Your task to perform on an android device: open app "Facebook Lite" (install if not already installed) Image 0: 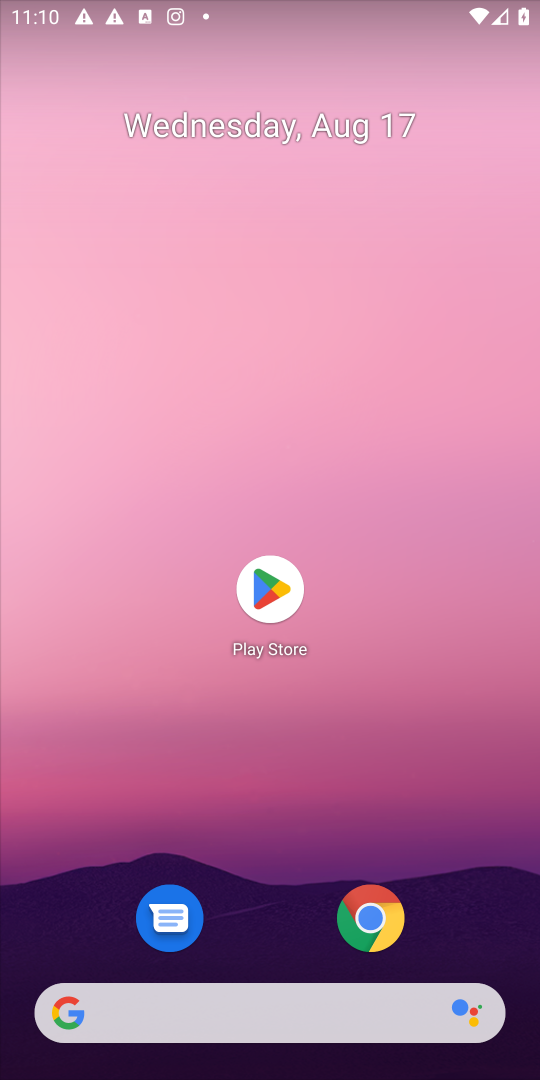
Step 0: click (262, 588)
Your task to perform on an android device: open app "Facebook Lite" (install if not already installed) Image 1: 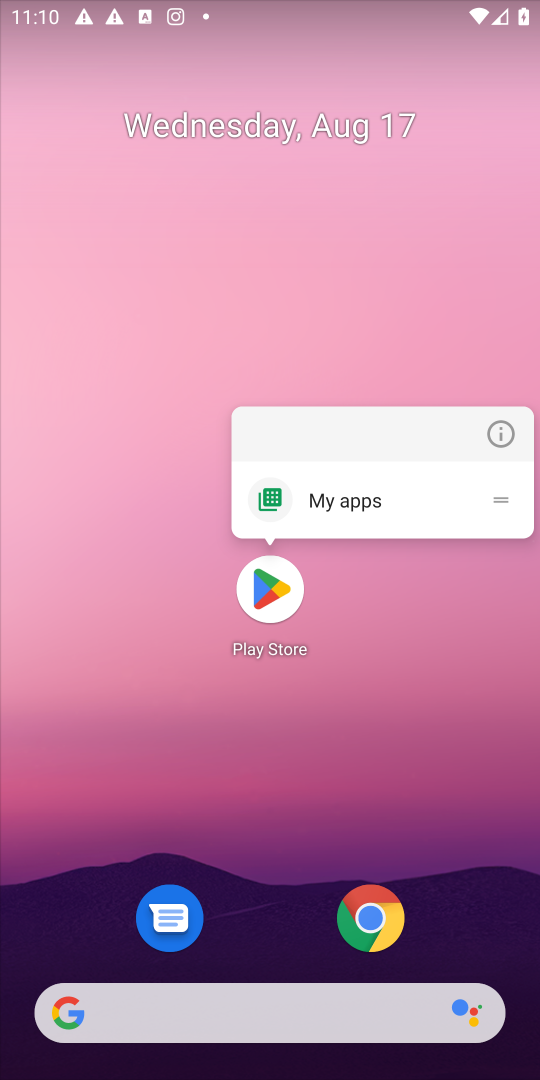
Step 1: click (266, 587)
Your task to perform on an android device: open app "Facebook Lite" (install if not already installed) Image 2: 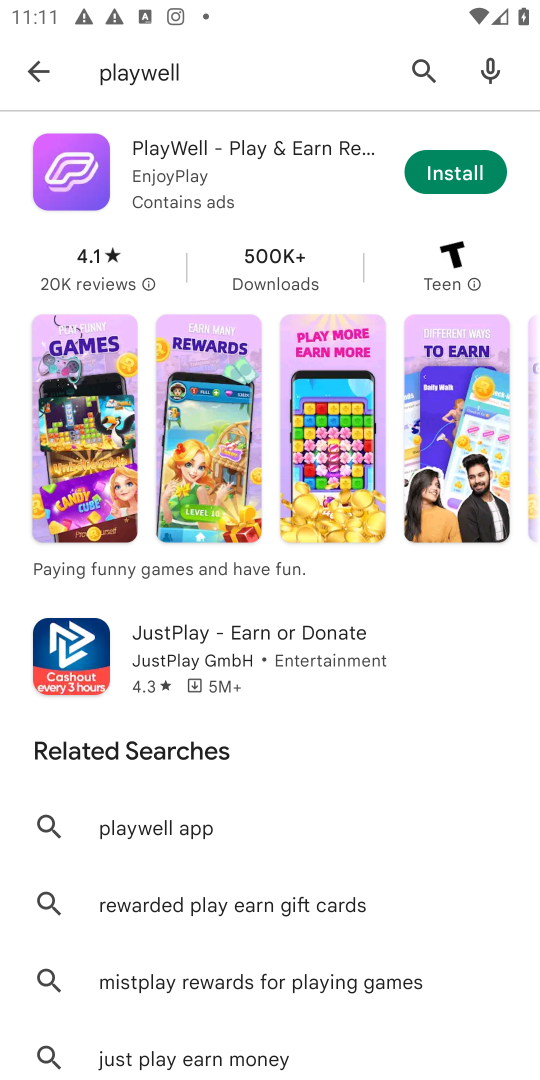
Step 2: click (426, 60)
Your task to perform on an android device: open app "Facebook Lite" (install if not already installed) Image 3: 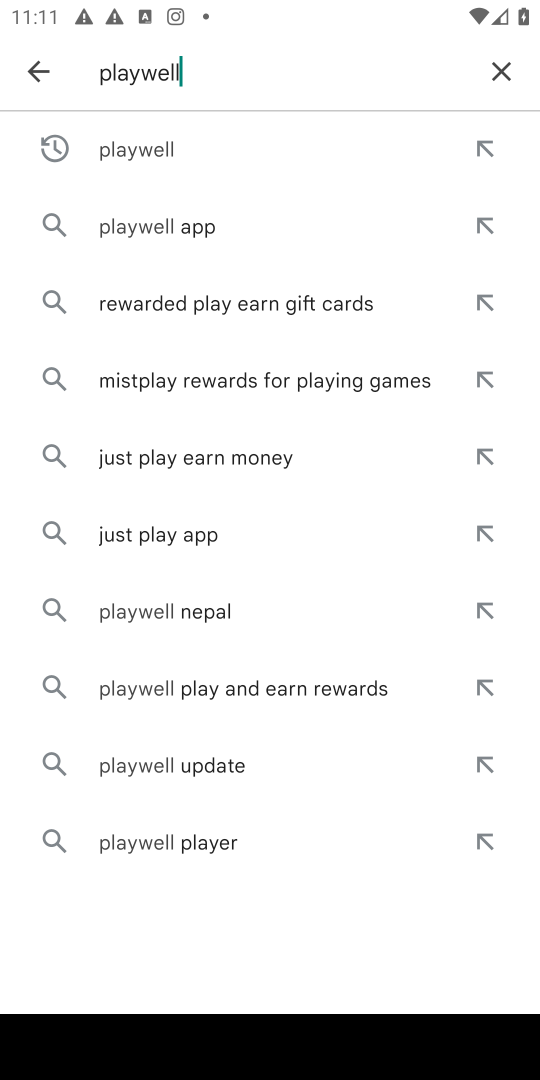
Step 3: click (490, 64)
Your task to perform on an android device: open app "Facebook Lite" (install if not already installed) Image 4: 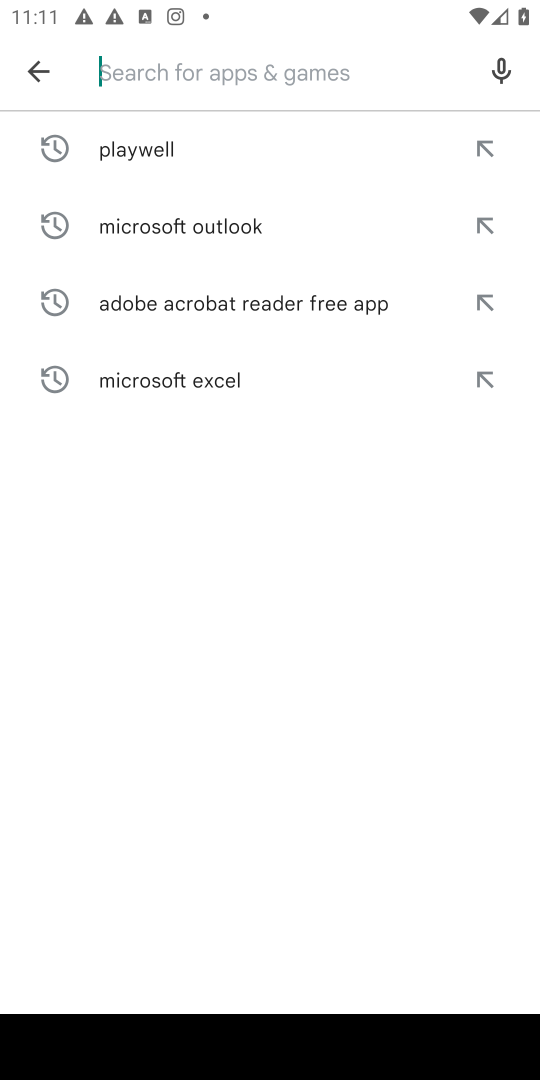
Step 4: type "Facebook Lite"
Your task to perform on an android device: open app "Facebook Lite" (install if not already installed) Image 5: 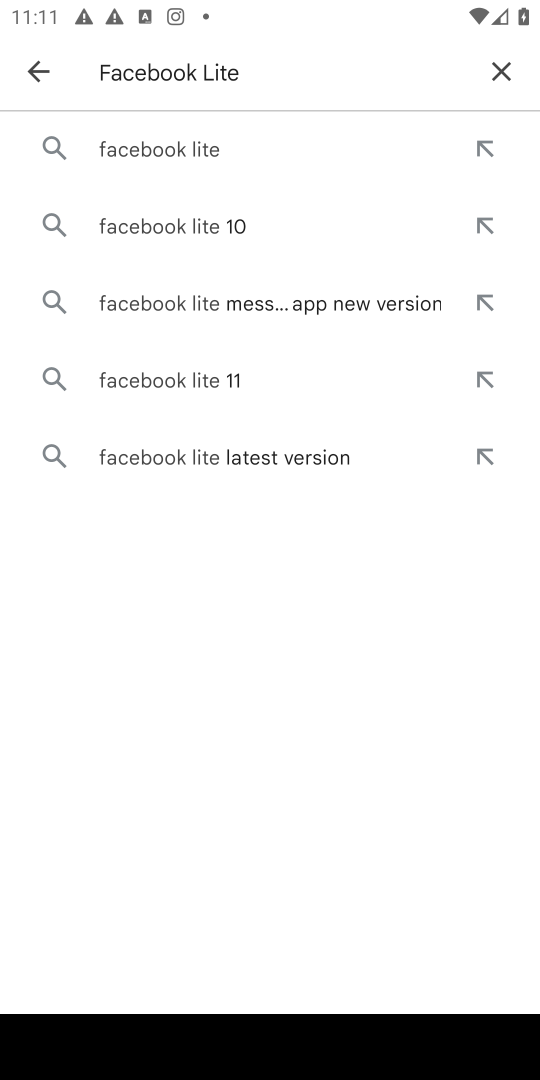
Step 5: click (170, 145)
Your task to perform on an android device: open app "Facebook Lite" (install if not already installed) Image 6: 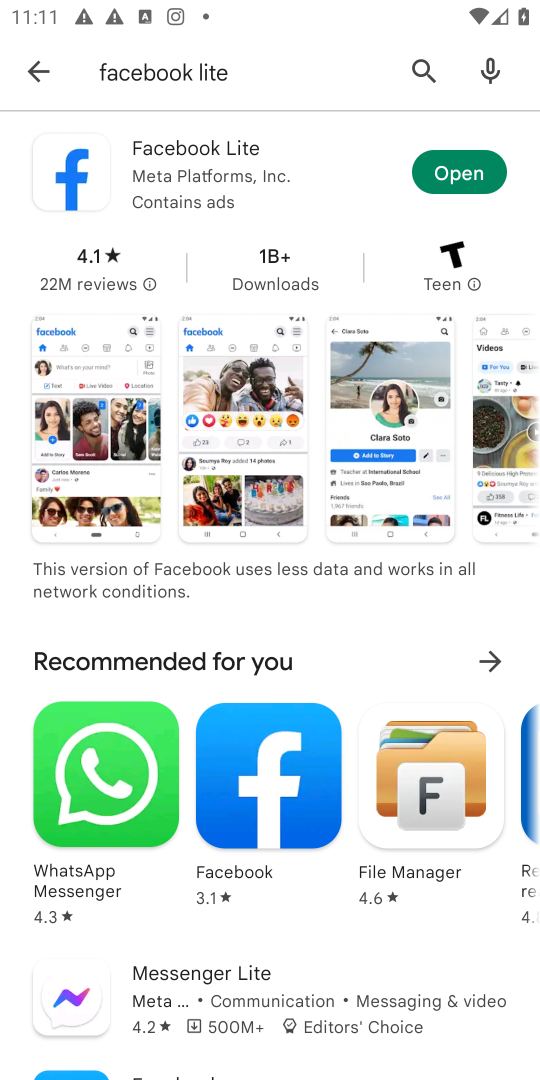
Step 6: click (474, 173)
Your task to perform on an android device: open app "Facebook Lite" (install if not already installed) Image 7: 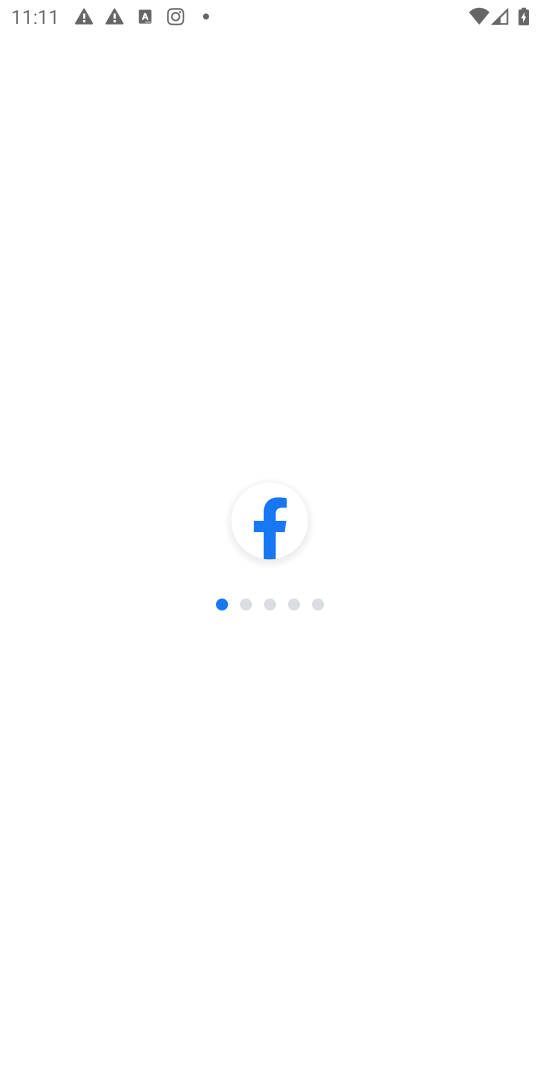
Step 7: task complete